Your task to perform on an android device: change keyboard looks Image 0: 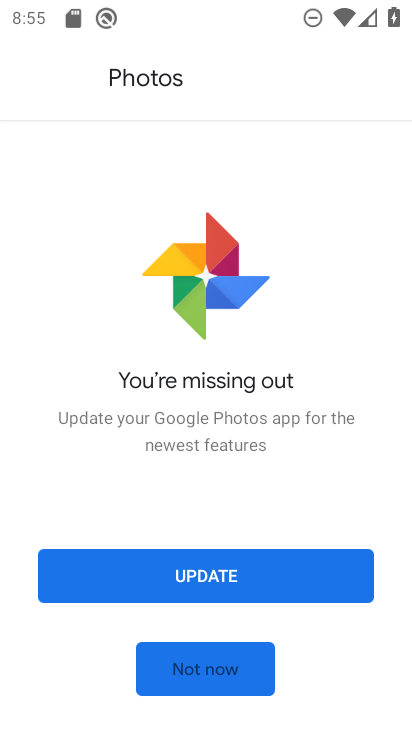
Step 0: press home button
Your task to perform on an android device: change keyboard looks Image 1: 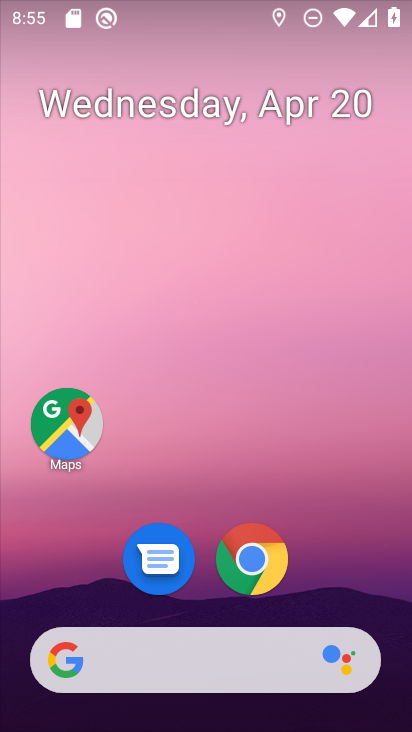
Step 1: drag from (369, 607) to (253, 218)
Your task to perform on an android device: change keyboard looks Image 2: 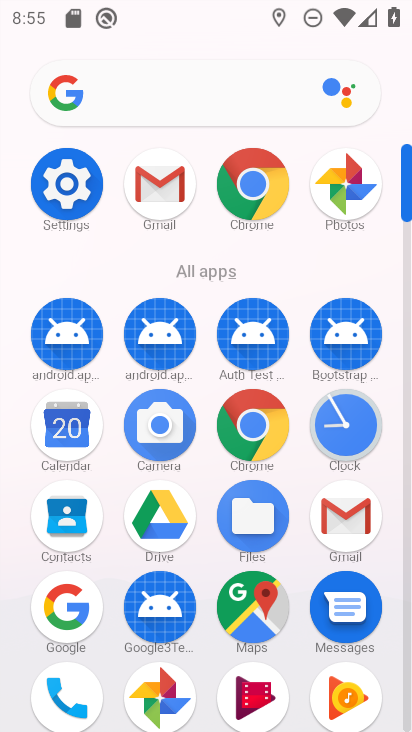
Step 2: click (407, 683)
Your task to perform on an android device: change keyboard looks Image 3: 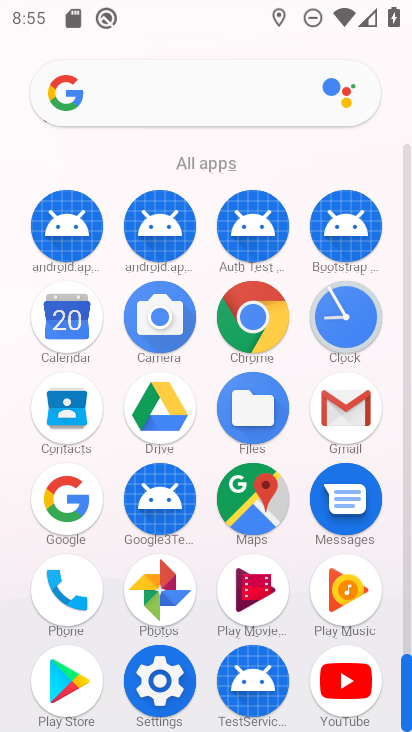
Step 3: click (160, 681)
Your task to perform on an android device: change keyboard looks Image 4: 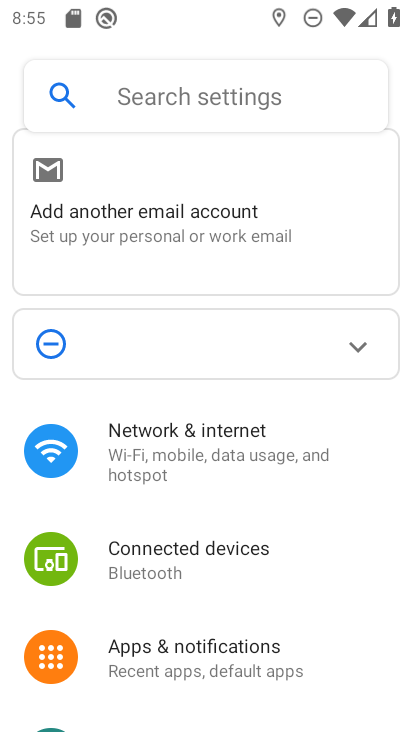
Step 4: drag from (316, 681) to (271, 325)
Your task to perform on an android device: change keyboard looks Image 5: 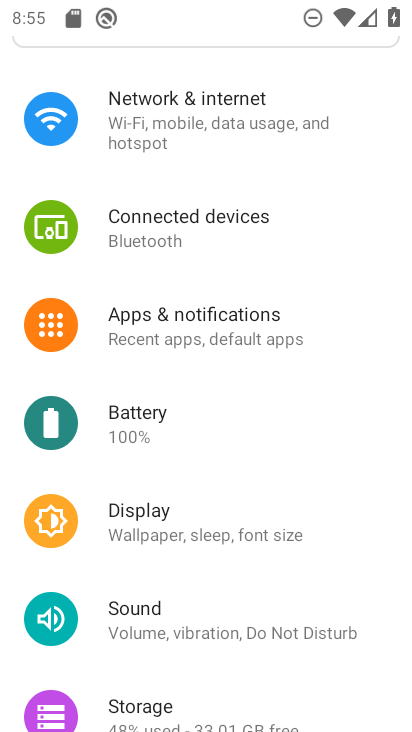
Step 5: drag from (282, 618) to (286, 221)
Your task to perform on an android device: change keyboard looks Image 6: 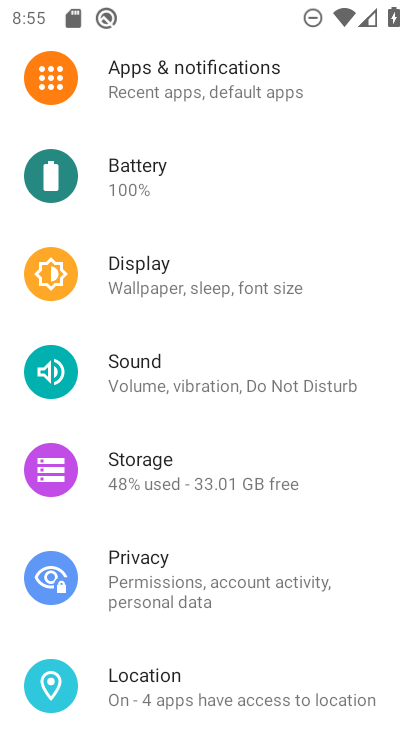
Step 6: drag from (338, 617) to (313, 332)
Your task to perform on an android device: change keyboard looks Image 7: 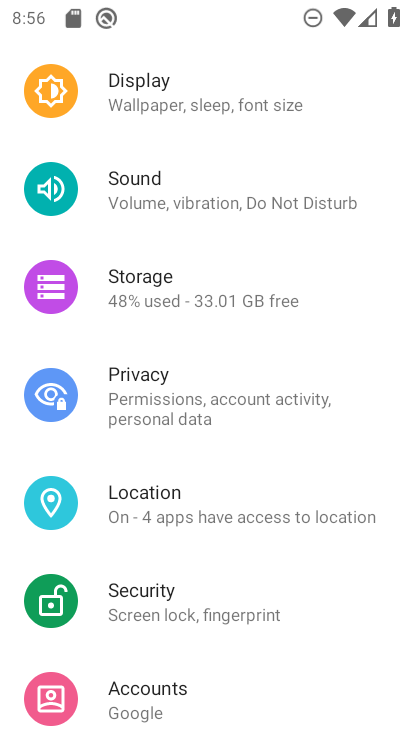
Step 7: drag from (312, 618) to (314, 268)
Your task to perform on an android device: change keyboard looks Image 8: 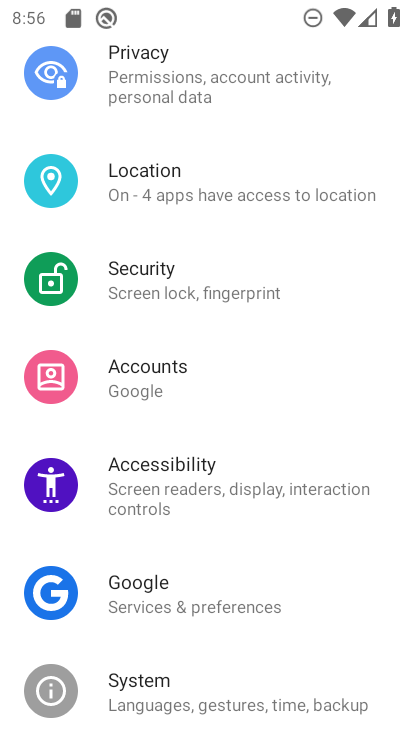
Step 8: drag from (293, 646) to (292, 260)
Your task to perform on an android device: change keyboard looks Image 9: 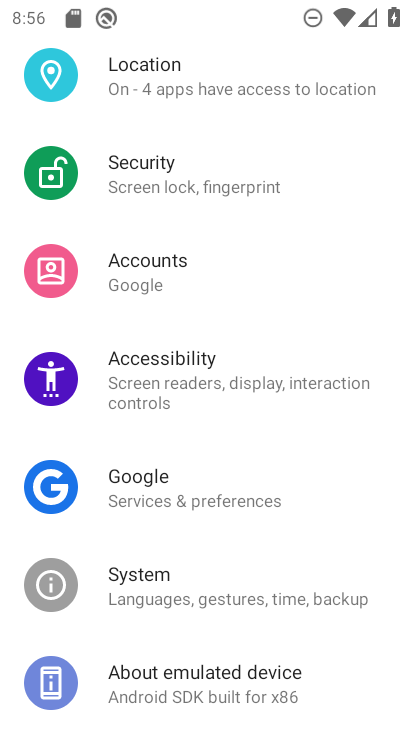
Step 9: click (135, 572)
Your task to perform on an android device: change keyboard looks Image 10: 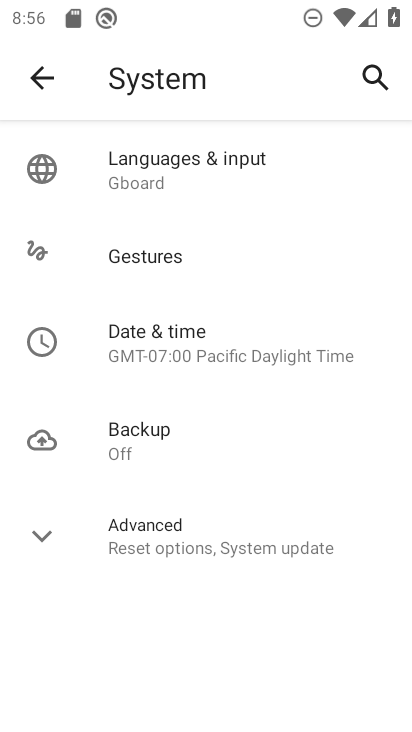
Step 10: click (142, 159)
Your task to perform on an android device: change keyboard looks Image 11: 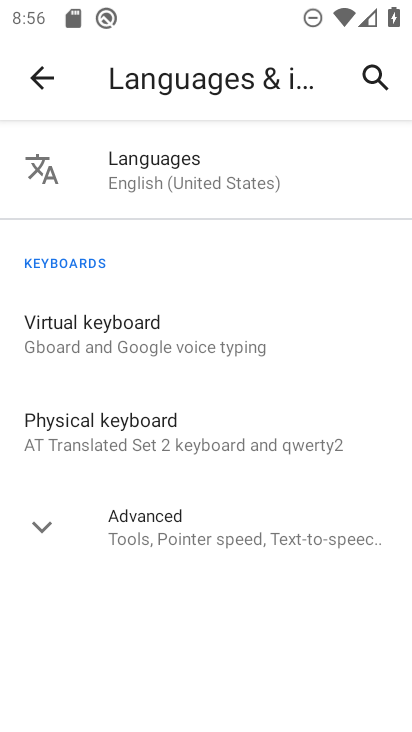
Step 11: click (126, 456)
Your task to perform on an android device: change keyboard looks Image 12: 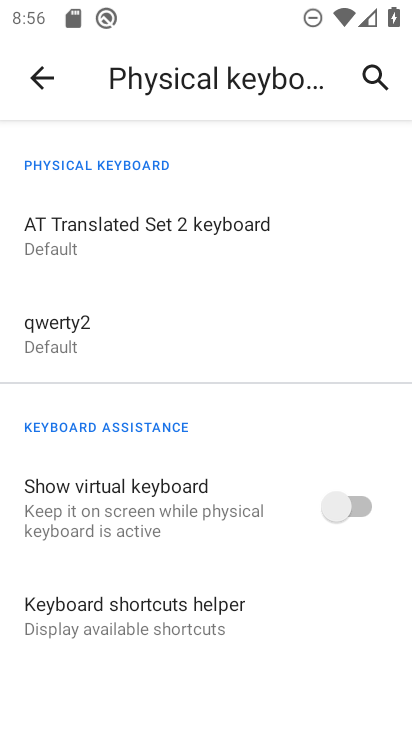
Step 12: click (63, 335)
Your task to perform on an android device: change keyboard looks Image 13: 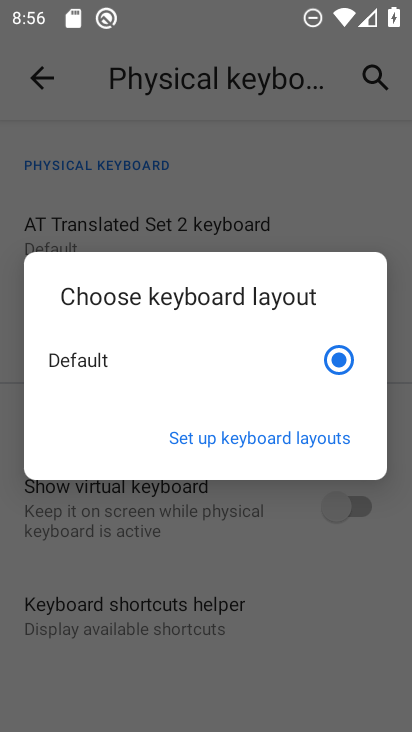
Step 13: click (245, 432)
Your task to perform on an android device: change keyboard looks Image 14: 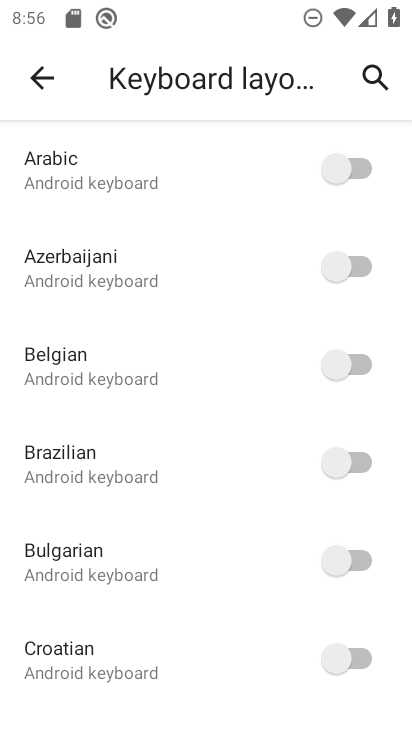
Step 14: drag from (309, 652) to (214, 127)
Your task to perform on an android device: change keyboard looks Image 15: 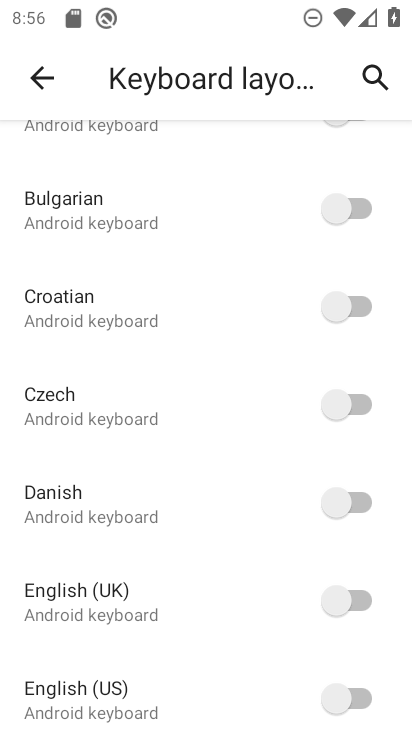
Step 15: click (357, 600)
Your task to perform on an android device: change keyboard looks Image 16: 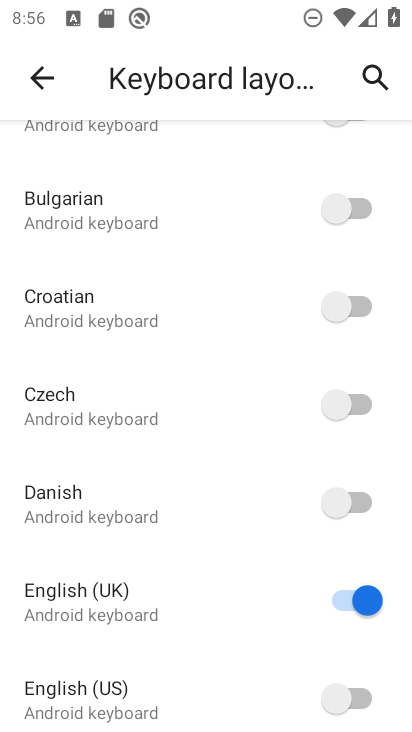
Step 16: task complete